Your task to perform on an android device: turn notification dots on Image 0: 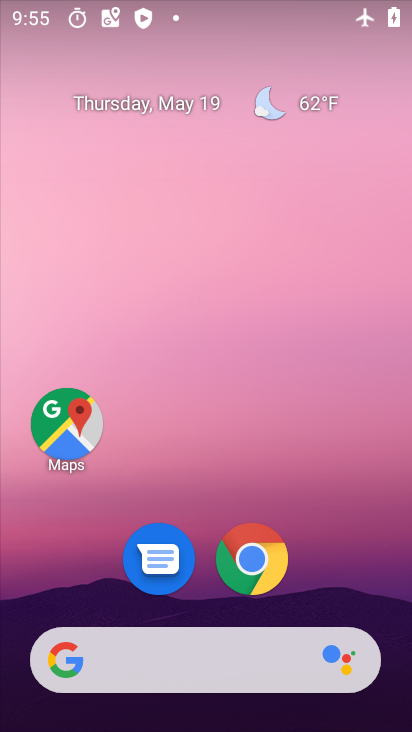
Step 0: drag from (344, 575) to (294, 142)
Your task to perform on an android device: turn notification dots on Image 1: 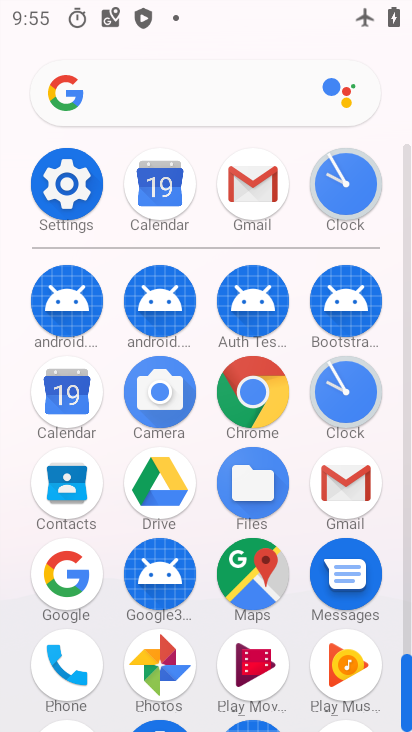
Step 1: click (64, 163)
Your task to perform on an android device: turn notification dots on Image 2: 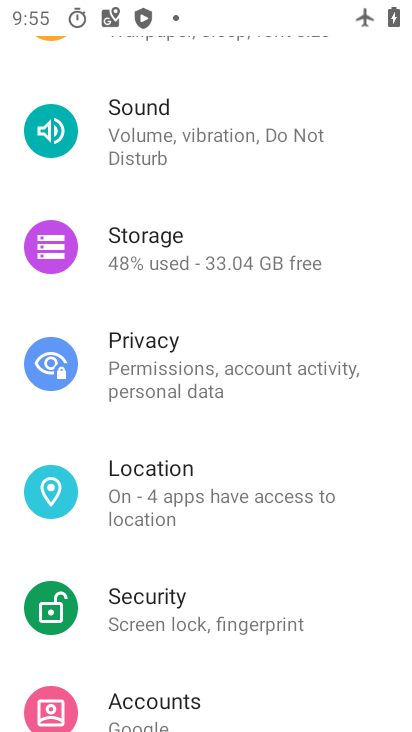
Step 2: drag from (305, 625) to (275, 730)
Your task to perform on an android device: turn notification dots on Image 3: 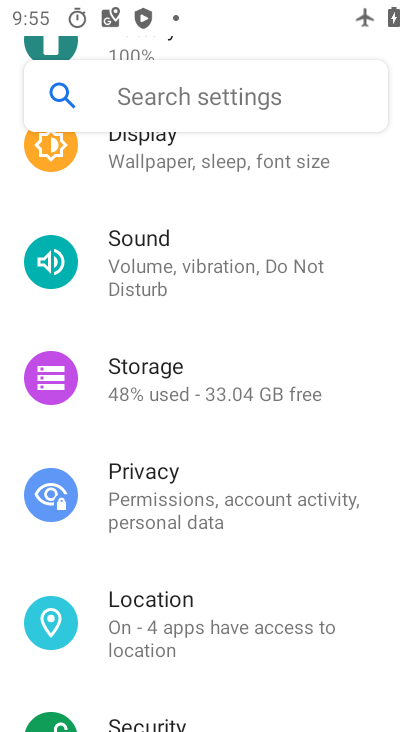
Step 3: drag from (209, 287) to (310, 663)
Your task to perform on an android device: turn notification dots on Image 4: 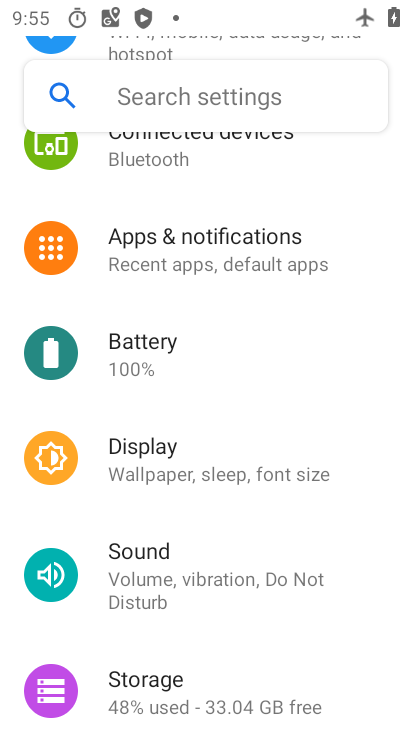
Step 4: drag from (303, 653) to (314, 705)
Your task to perform on an android device: turn notification dots on Image 5: 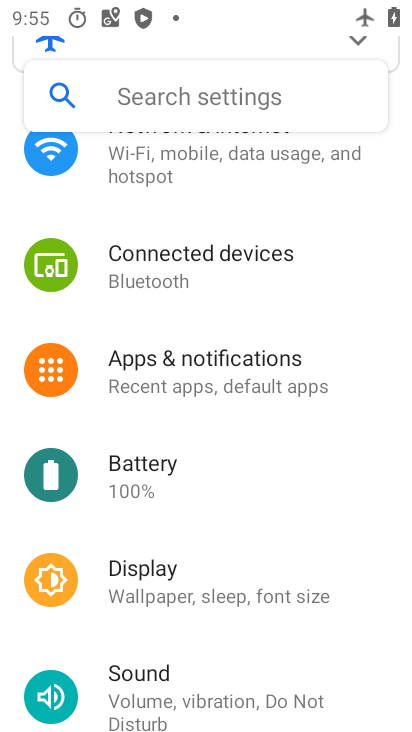
Step 5: click (183, 372)
Your task to perform on an android device: turn notification dots on Image 6: 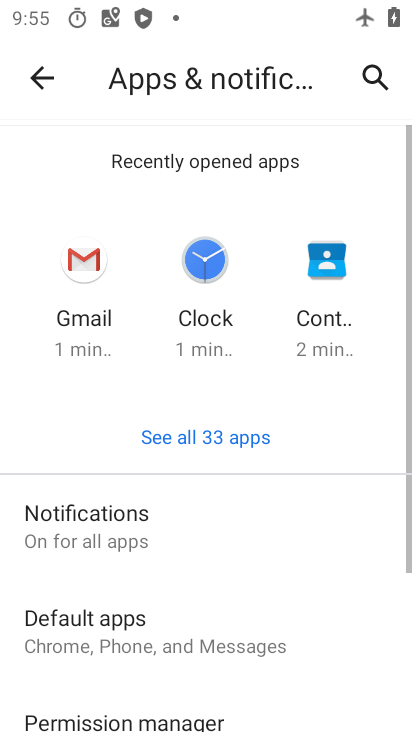
Step 6: click (168, 539)
Your task to perform on an android device: turn notification dots on Image 7: 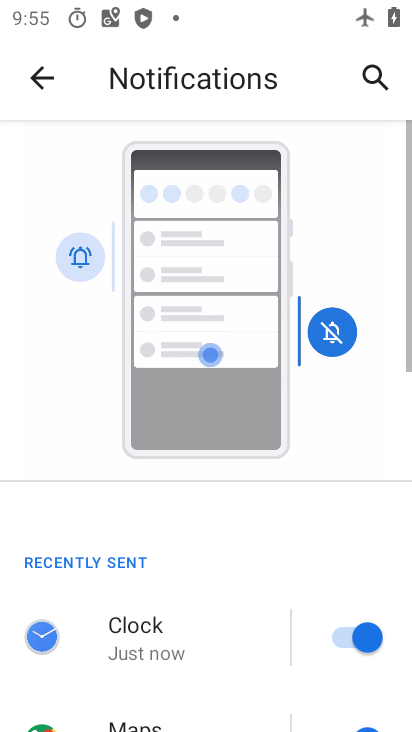
Step 7: drag from (188, 534) to (212, 2)
Your task to perform on an android device: turn notification dots on Image 8: 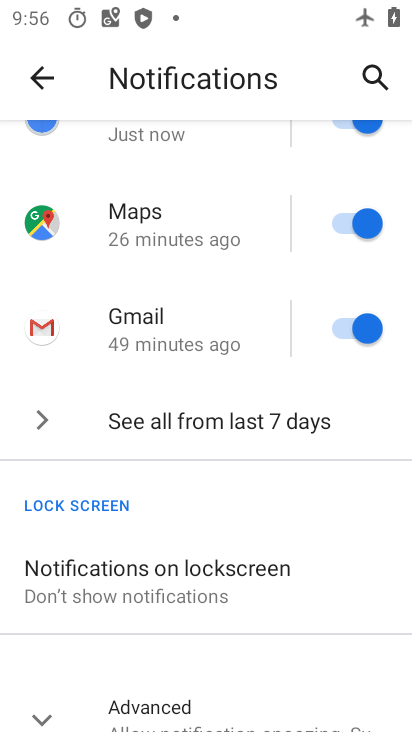
Step 8: drag from (217, 655) to (252, 226)
Your task to perform on an android device: turn notification dots on Image 9: 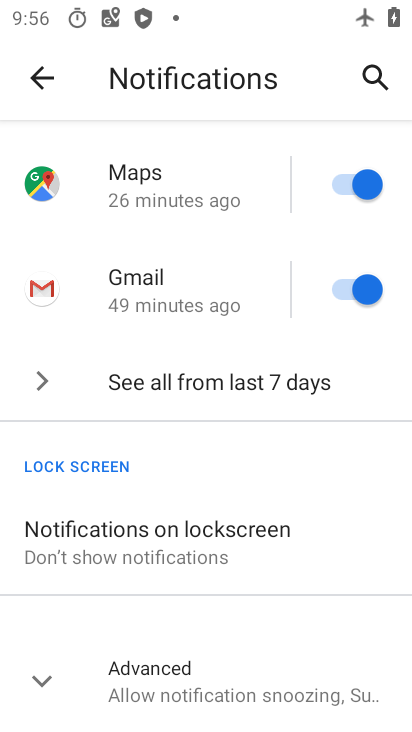
Step 9: click (208, 672)
Your task to perform on an android device: turn notification dots on Image 10: 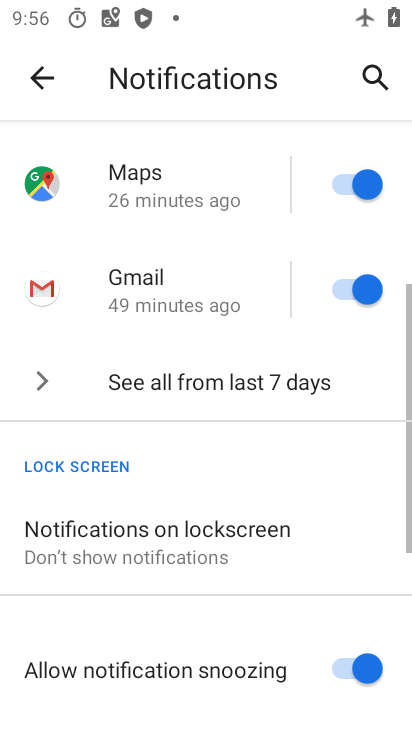
Step 10: drag from (214, 644) to (216, 226)
Your task to perform on an android device: turn notification dots on Image 11: 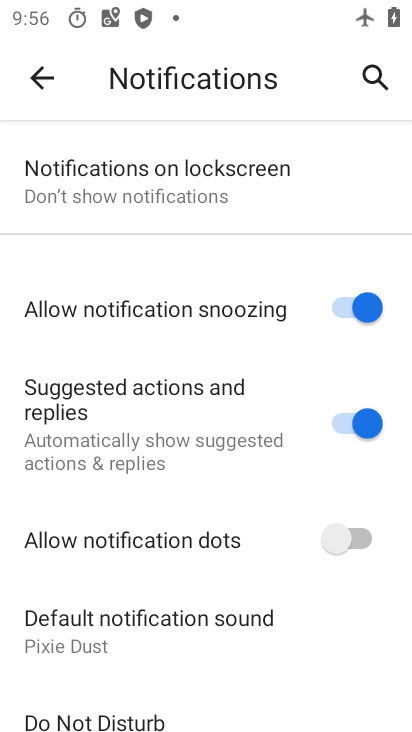
Step 11: click (324, 546)
Your task to perform on an android device: turn notification dots on Image 12: 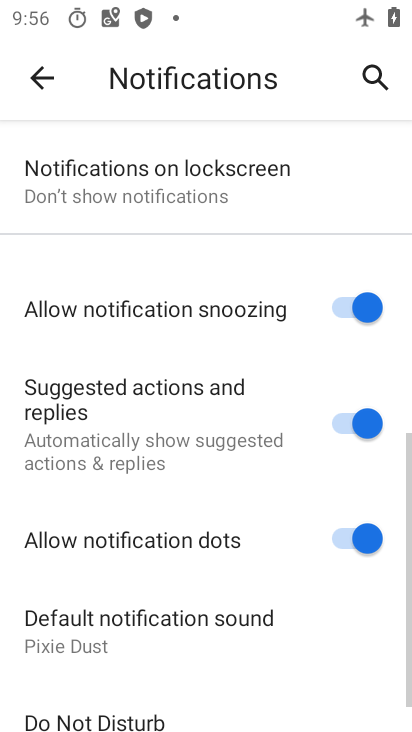
Step 12: task complete